Your task to perform on an android device: Go to calendar. Show me events next week Image 0: 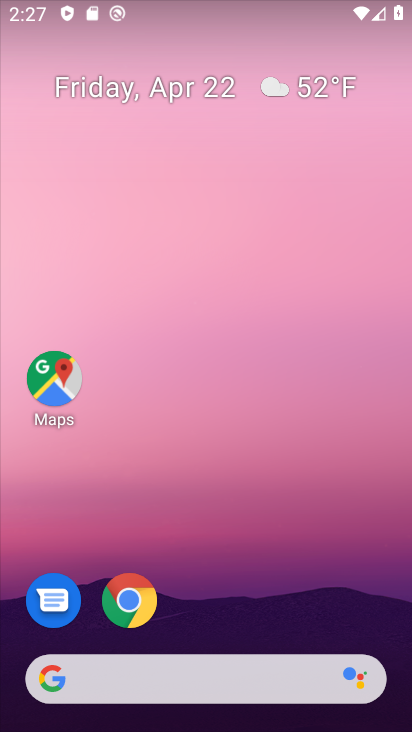
Step 0: drag from (289, 594) to (251, 58)
Your task to perform on an android device: Go to calendar. Show me events next week Image 1: 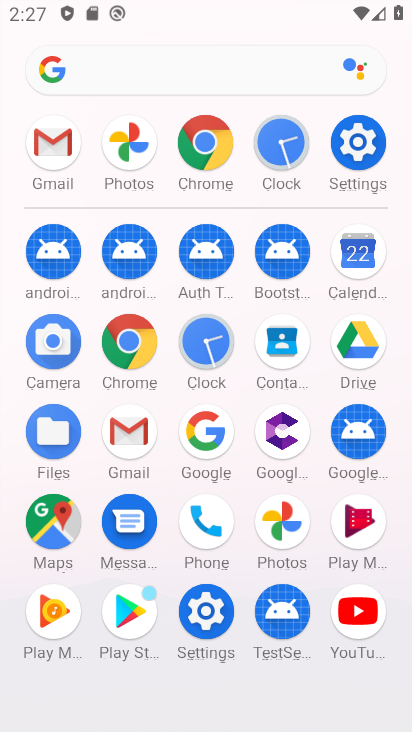
Step 1: drag from (10, 471) to (4, 180)
Your task to perform on an android device: Go to calendar. Show me events next week Image 2: 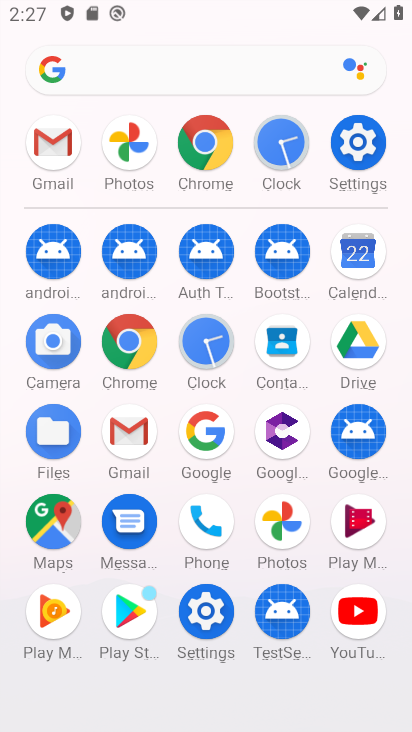
Step 2: click (358, 250)
Your task to perform on an android device: Go to calendar. Show me events next week Image 3: 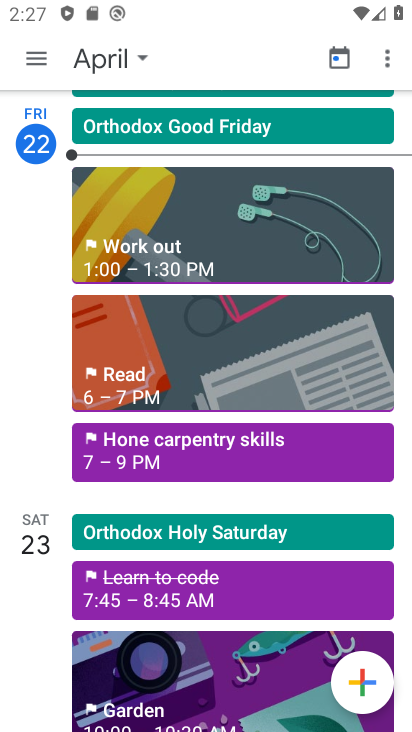
Step 3: drag from (253, 289) to (260, 524)
Your task to perform on an android device: Go to calendar. Show me events next week Image 4: 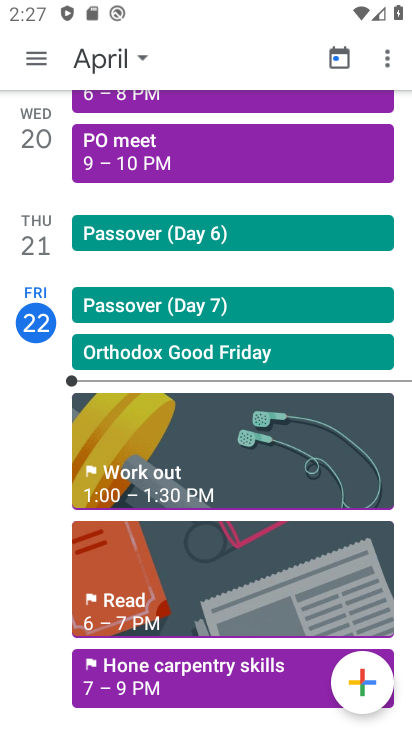
Step 4: click (125, 60)
Your task to perform on an android device: Go to calendar. Show me events next week Image 5: 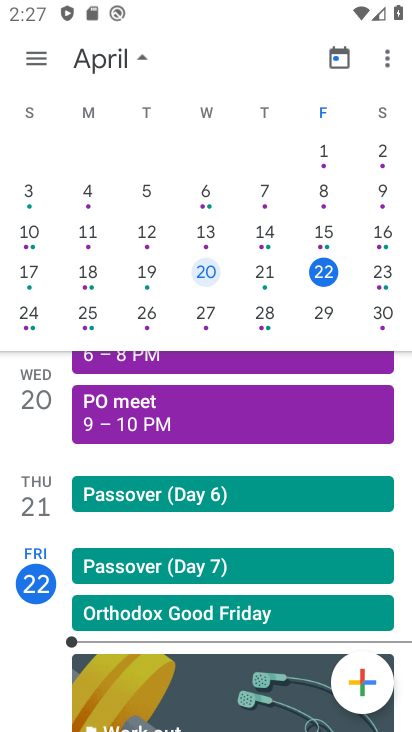
Step 5: click (30, 49)
Your task to perform on an android device: Go to calendar. Show me events next week Image 6: 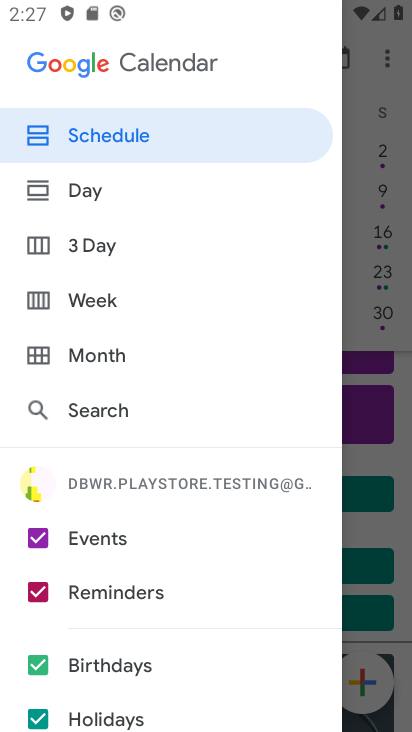
Step 6: click (105, 300)
Your task to perform on an android device: Go to calendar. Show me events next week Image 7: 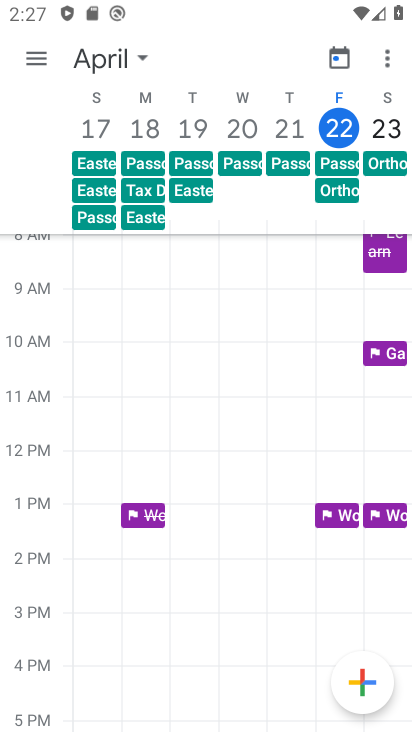
Step 7: task complete